Your task to perform on an android device: Go to battery settings Image 0: 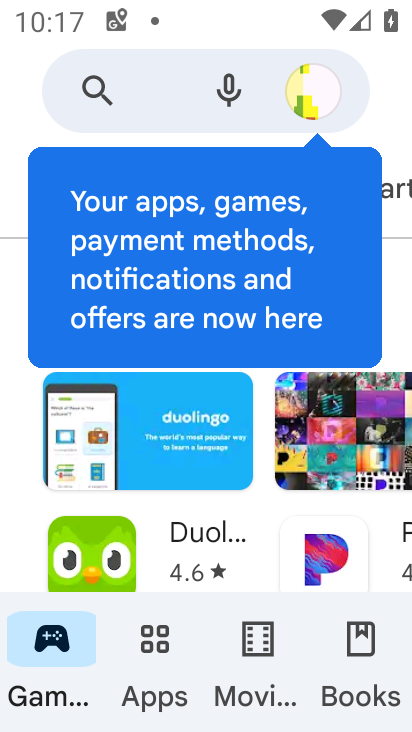
Step 0: press home button
Your task to perform on an android device: Go to battery settings Image 1: 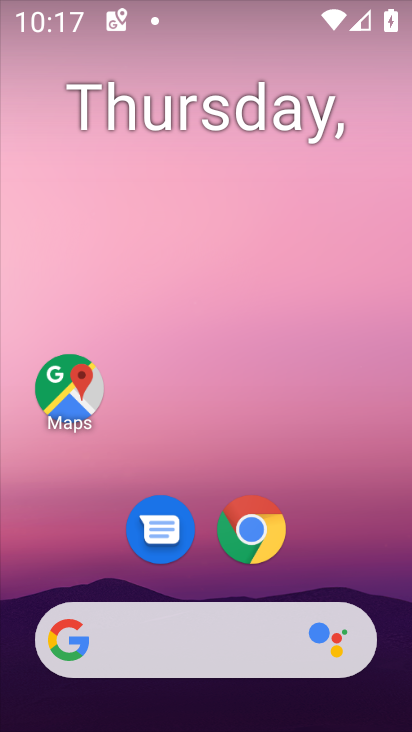
Step 1: drag from (216, 569) to (251, 120)
Your task to perform on an android device: Go to battery settings Image 2: 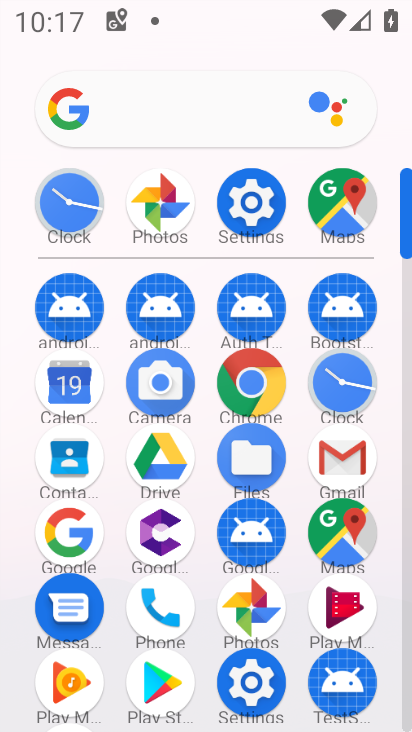
Step 2: click (255, 214)
Your task to perform on an android device: Go to battery settings Image 3: 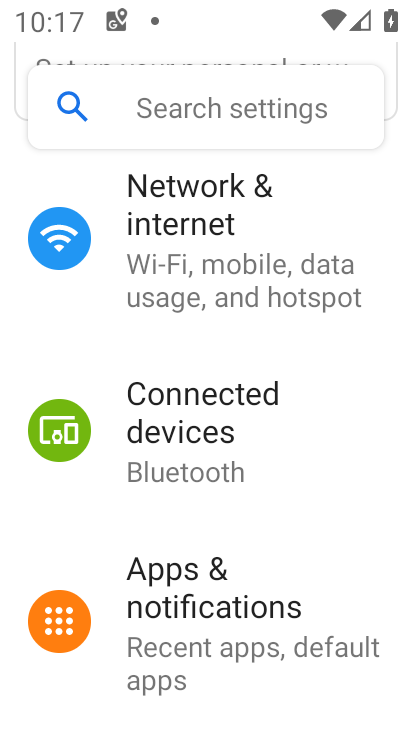
Step 3: drag from (188, 618) to (149, 303)
Your task to perform on an android device: Go to battery settings Image 4: 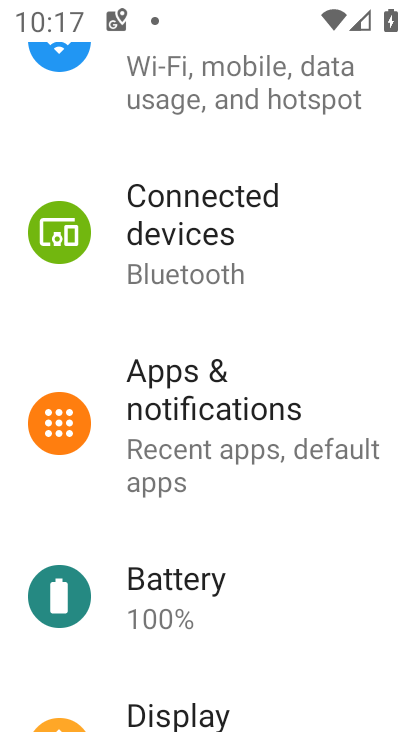
Step 4: drag from (176, 509) to (206, 215)
Your task to perform on an android device: Go to battery settings Image 5: 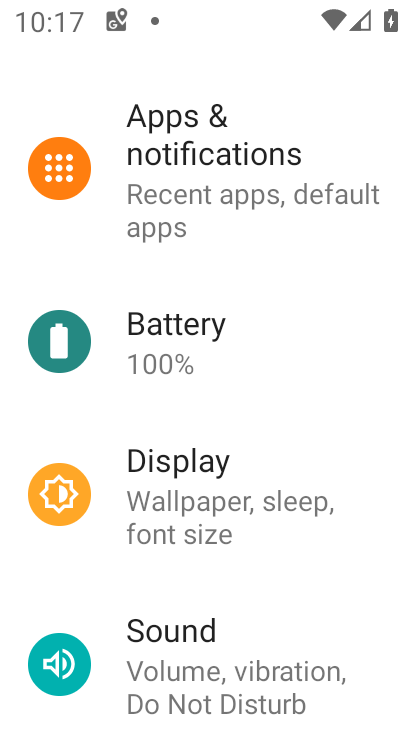
Step 5: click (120, 316)
Your task to perform on an android device: Go to battery settings Image 6: 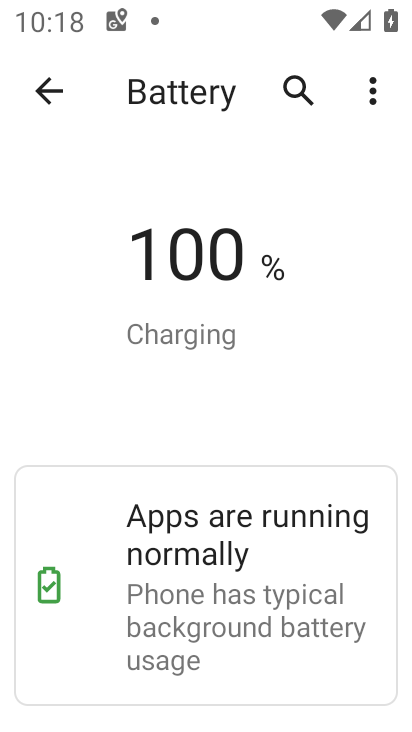
Step 6: task complete